Your task to perform on an android device: install app "TextNow: Call + Text Unlimited" Image 0: 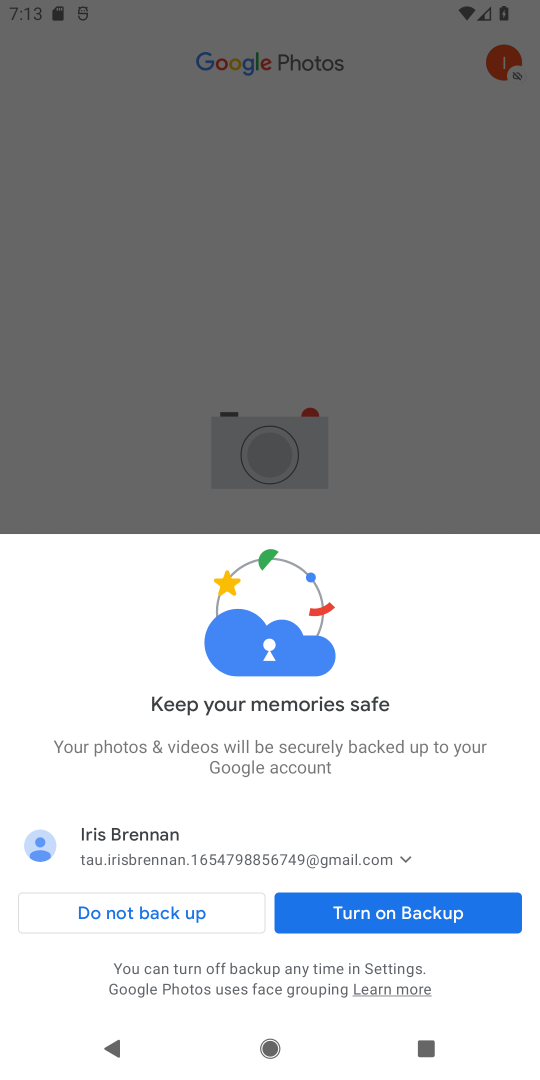
Step 0: press home button
Your task to perform on an android device: install app "TextNow: Call + Text Unlimited" Image 1: 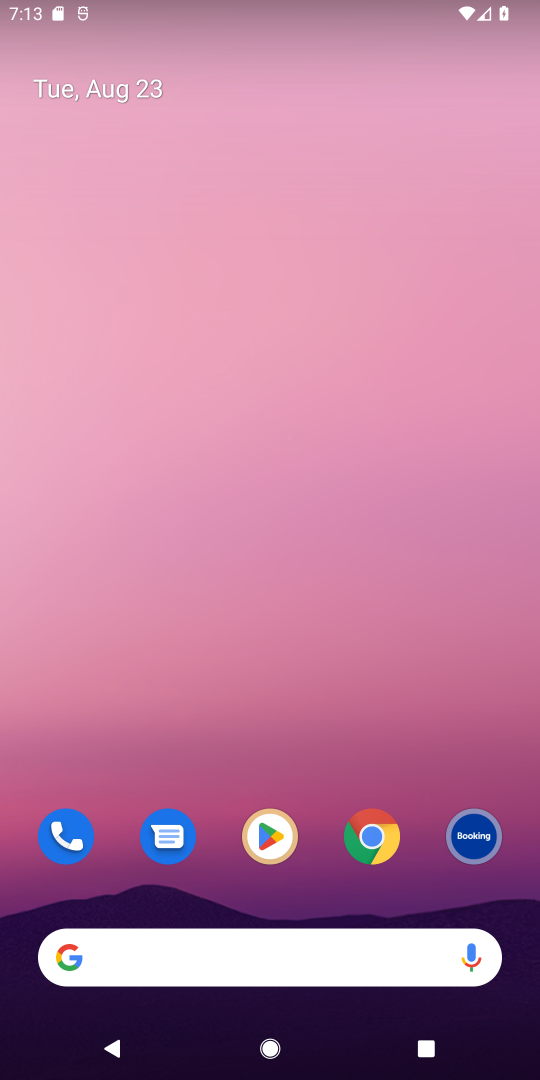
Step 1: click (273, 827)
Your task to perform on an android device: install app "TextNow: Call + Text Unlimited" Image 2: 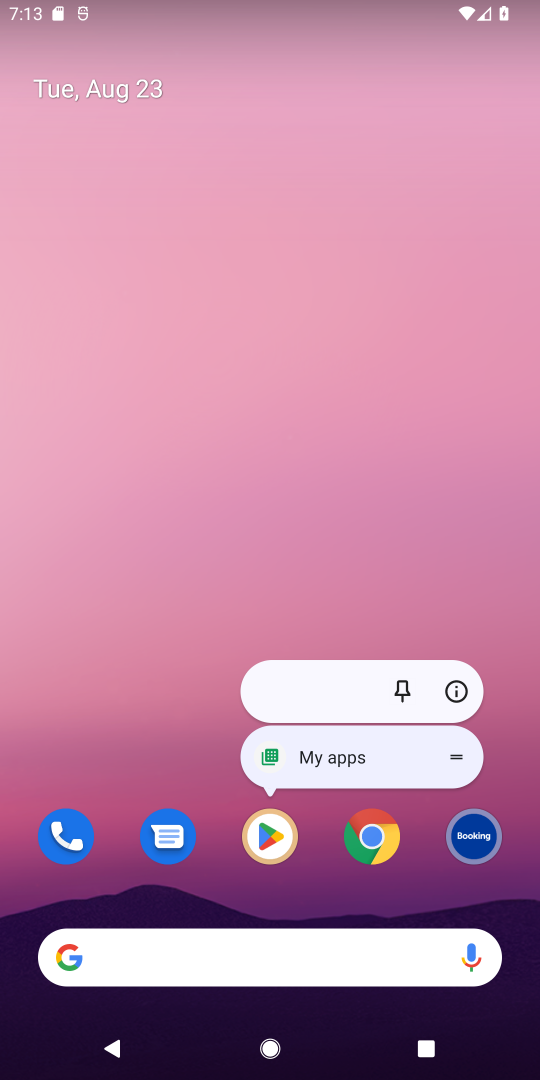
Step 2: click (253, 835)
Your task to perform on an android device: install app "TextNow: Call + Text Unlimited" Image 3: 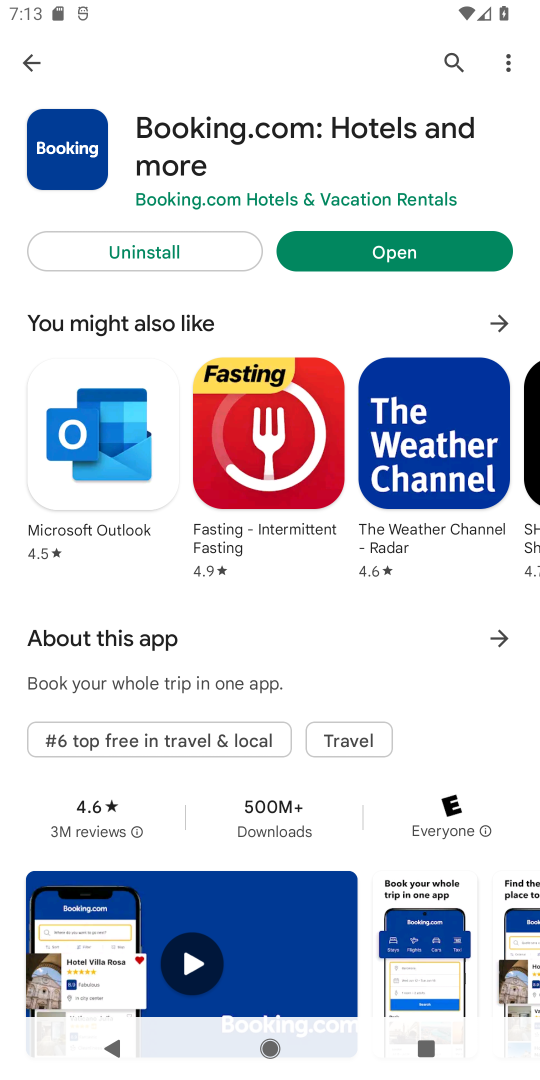
Step 3: click (442, 61)
Your task to perform on an android device: install app "TextNow: Call + Text Unlimited" Image 4: 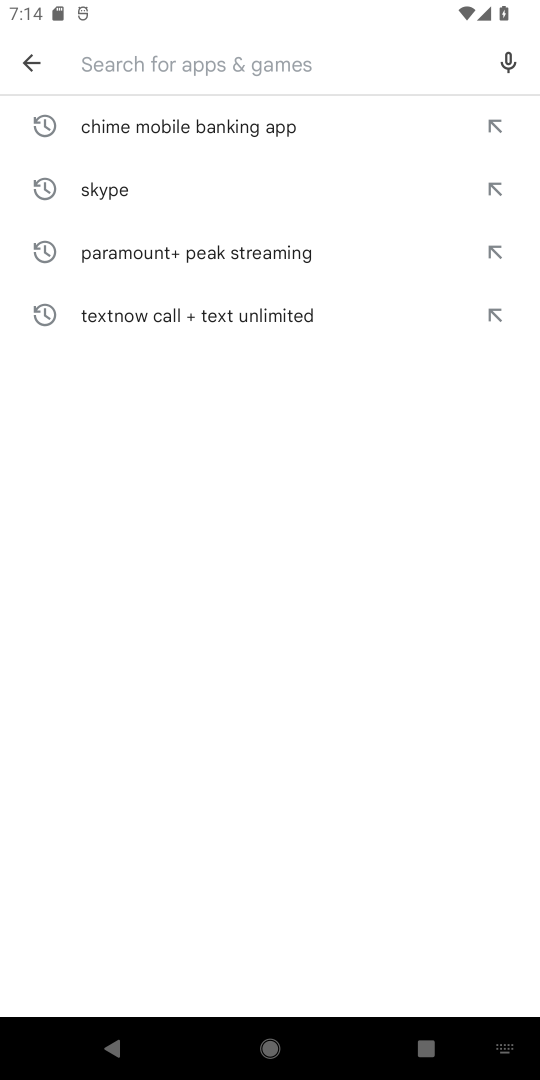
Step 4: type "TextNow: Call + Text Unlimited"
Your task to perform on an android device: install app "TextNow: Call + Text Unlimited" Image 5: 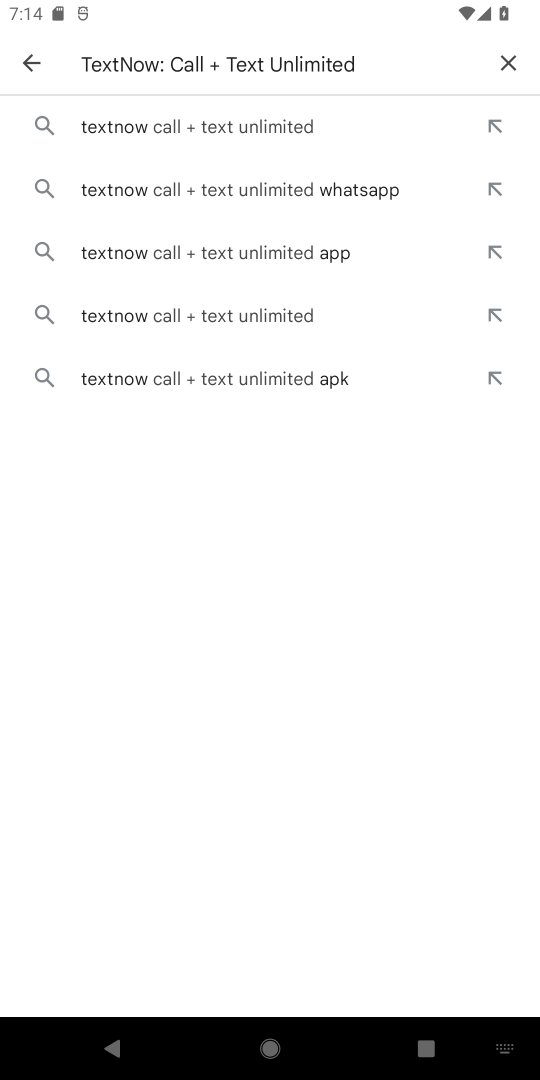
Step 5: click (225, 136)
Your task to perform on an android device: install app "TextNow: Call + Text Unlimited" Image 6: 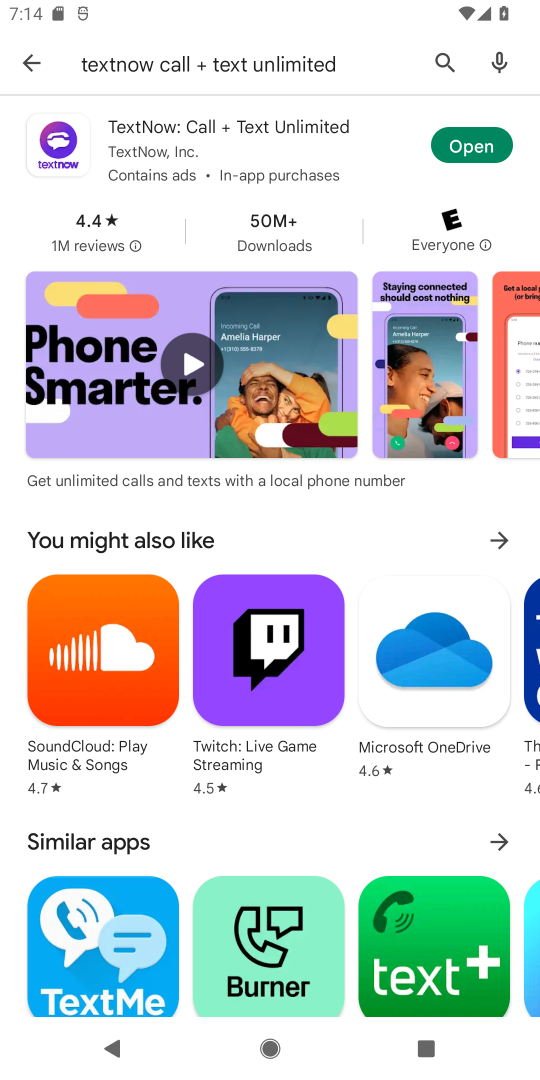
Step 6: task complete